Your task to perform on an android device: add a contact Image 0: 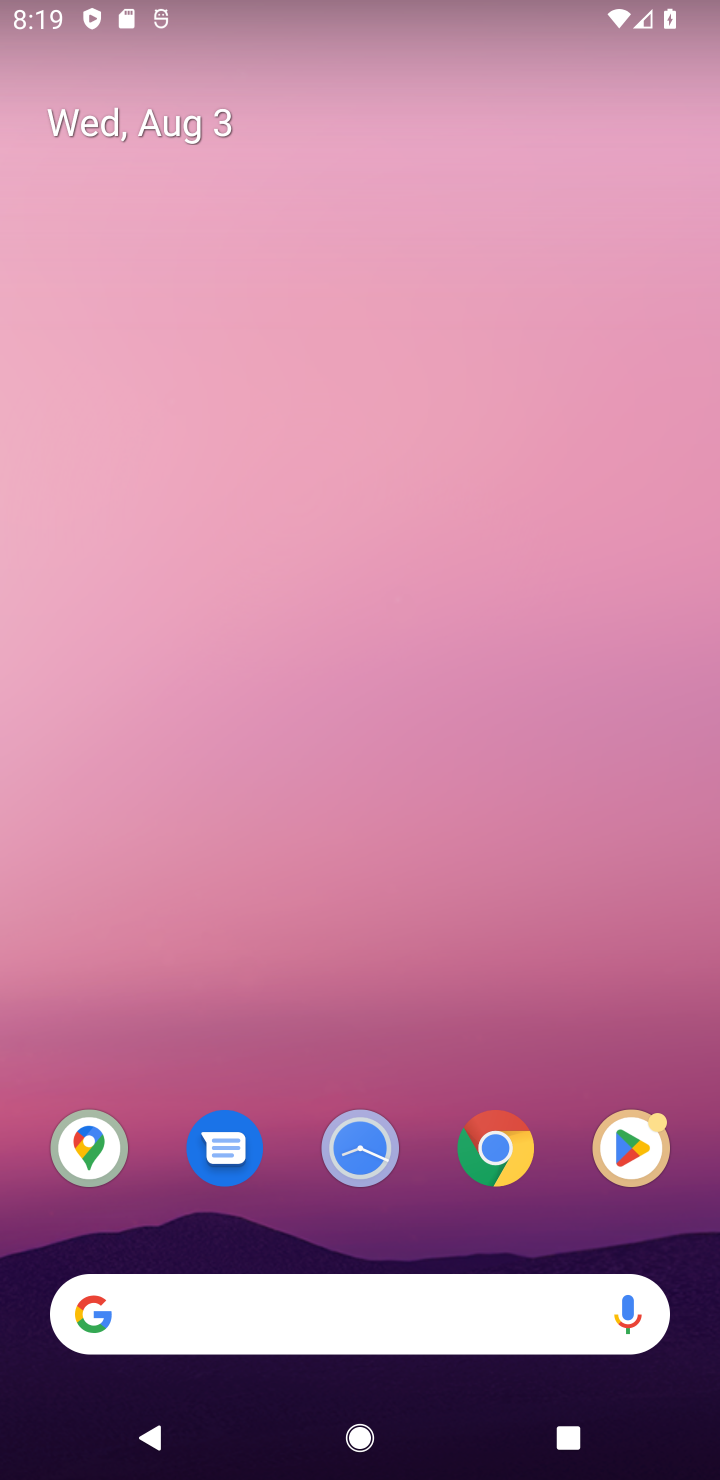
Step 0: drag from (557, 1055) to (504, 143)
Your task to perform on an android device: add a contact Image 1: 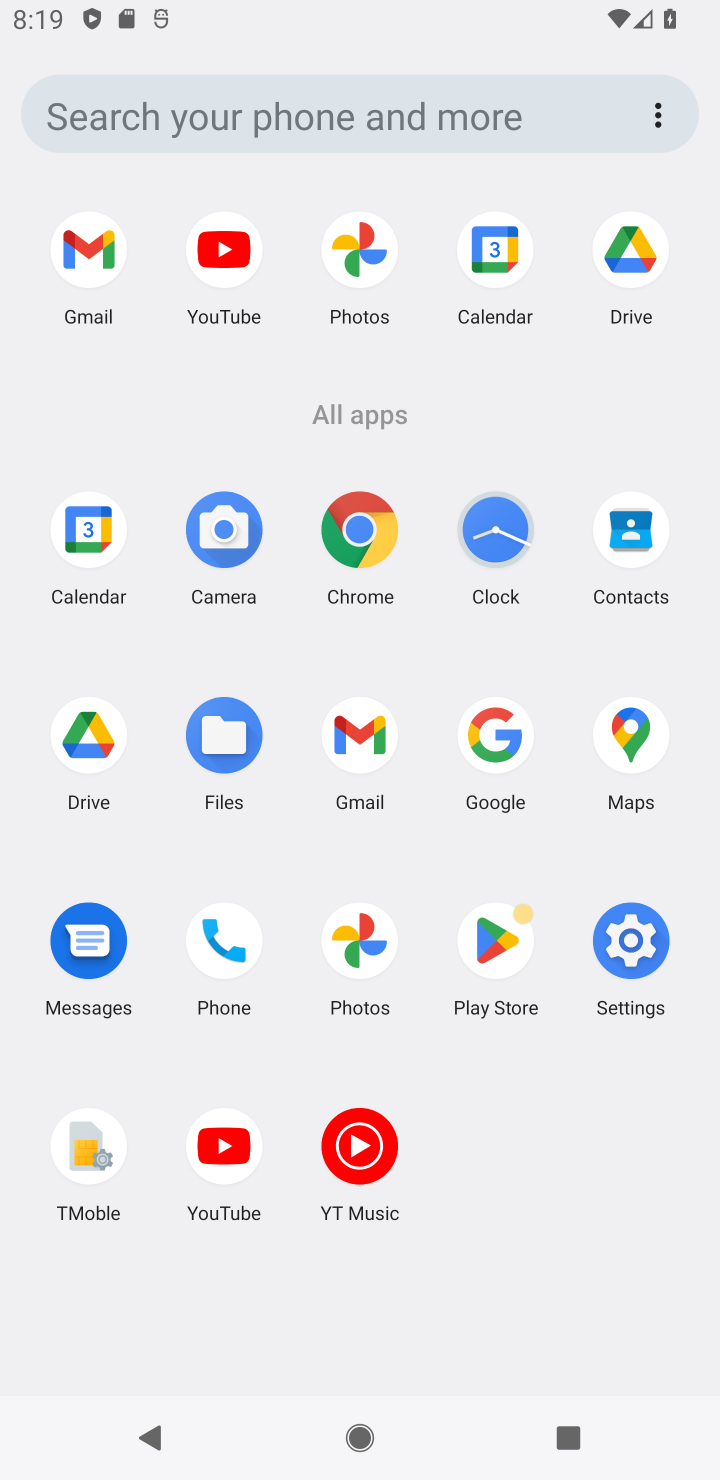
Step 1: click (640, 545)
Your task to perform on an android device: add a contact Image 2: 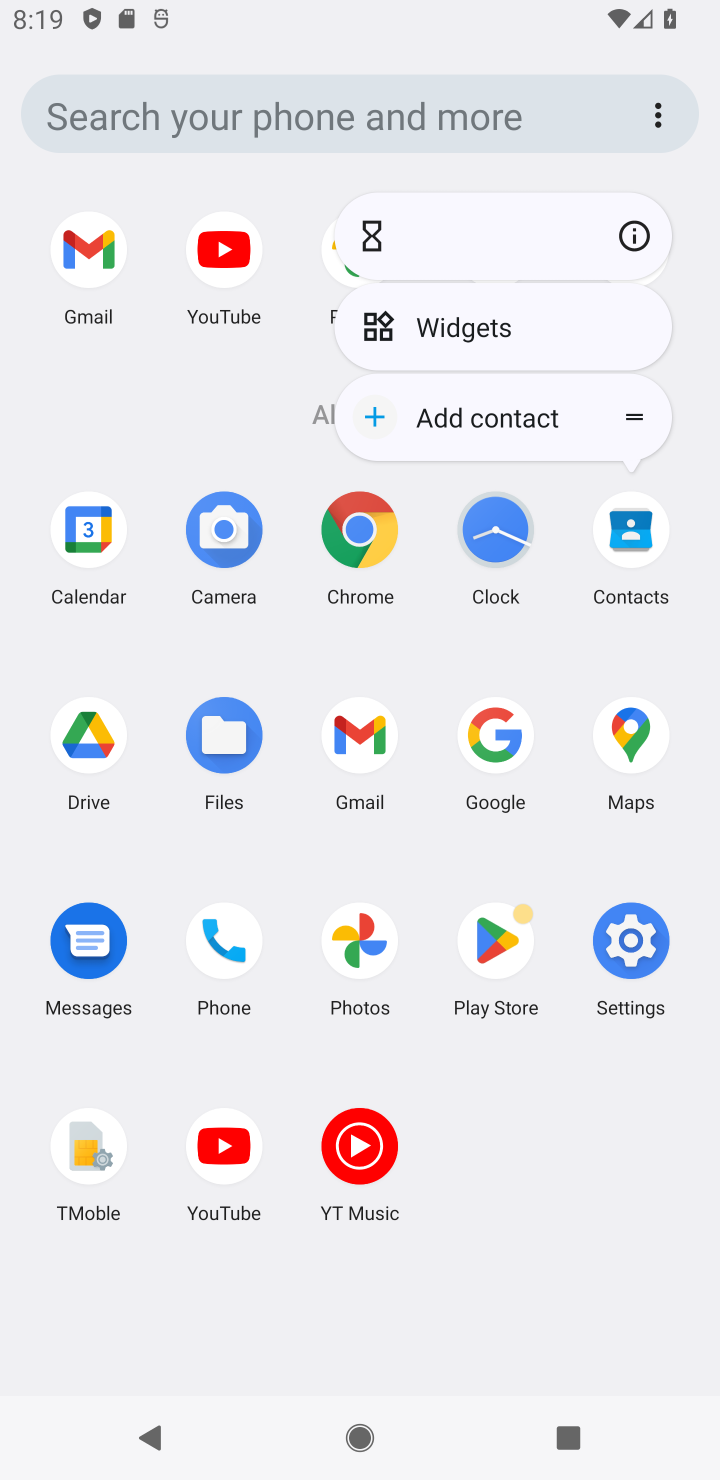
Step 2: click (640, 545)
Your task to perform on an android device: add a contact Image 3: 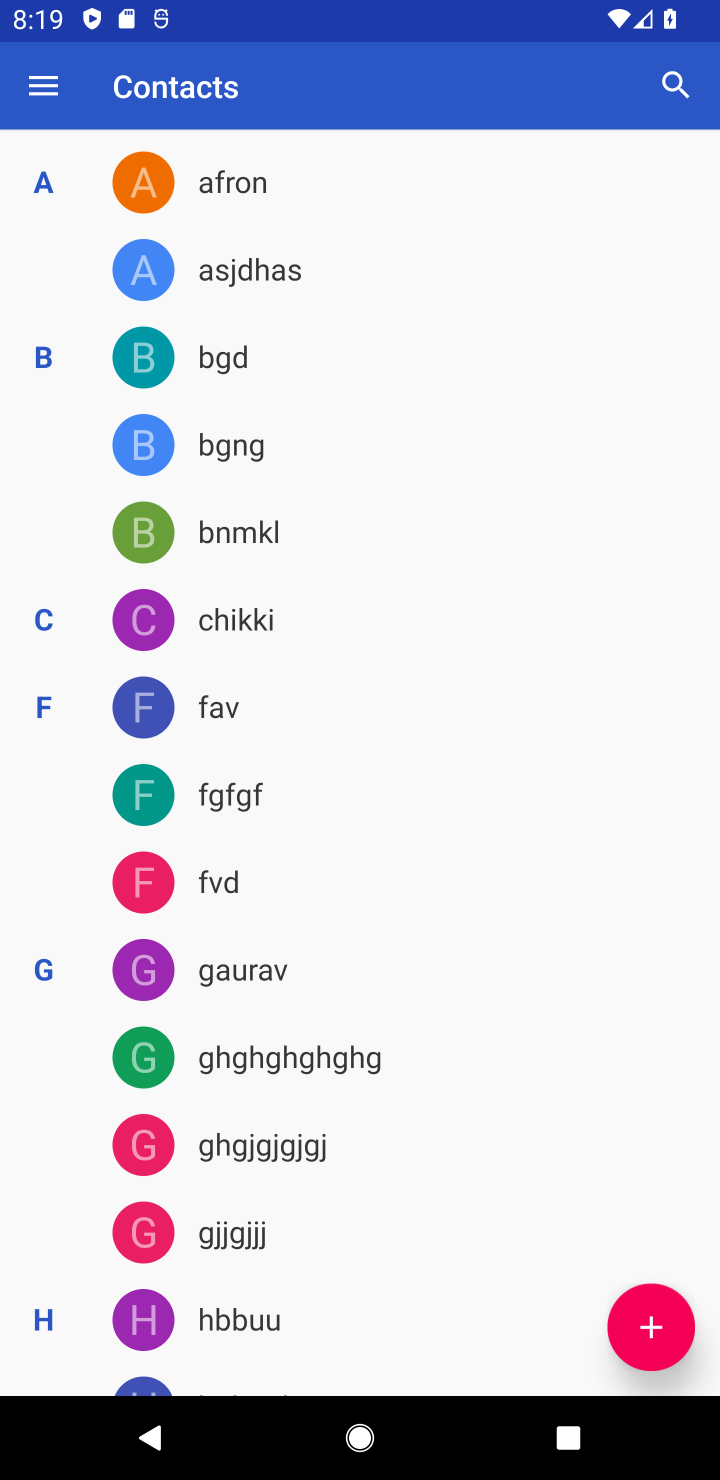
Step 3: click (651, 1311)
Your task to perform on an android device: add a contact Image 4: 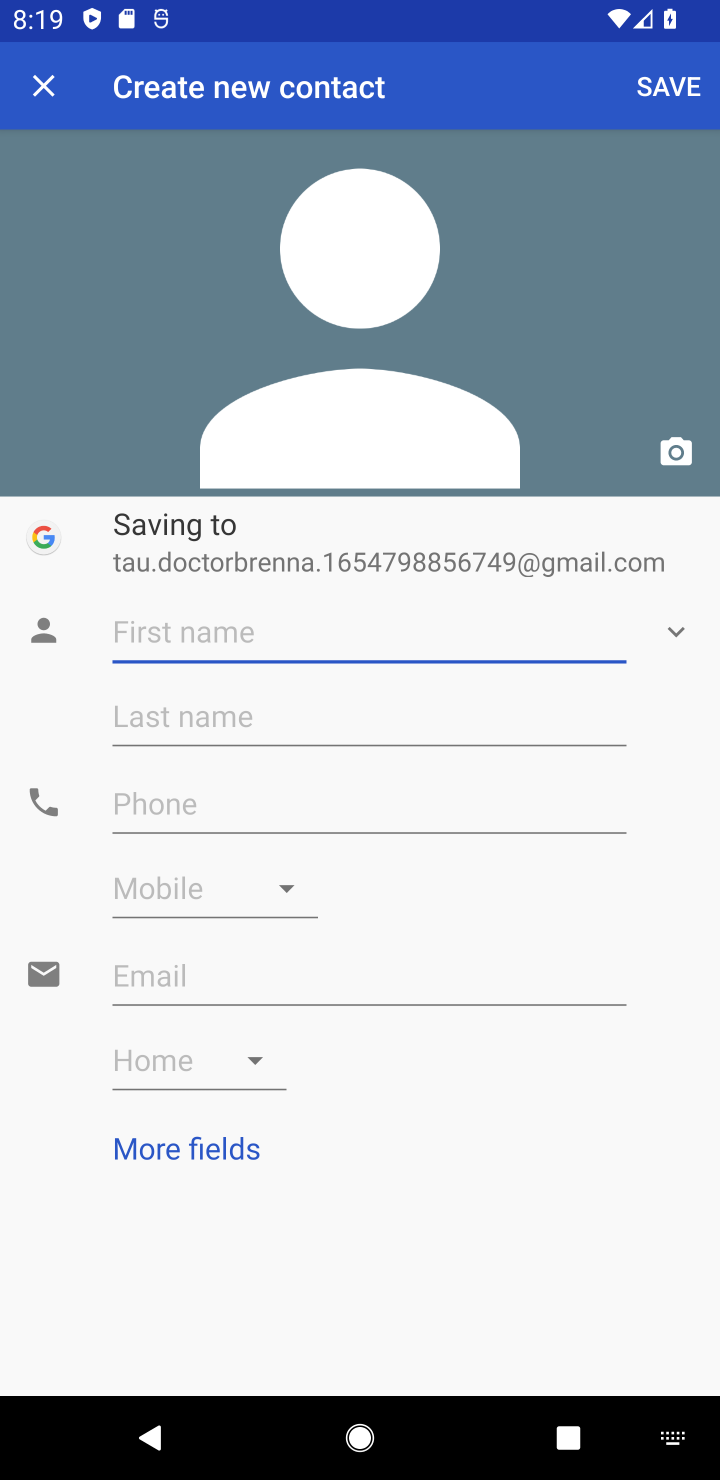
Step 4: click (260, 615)
Your task to perform on an android device: add a contact Image 5: 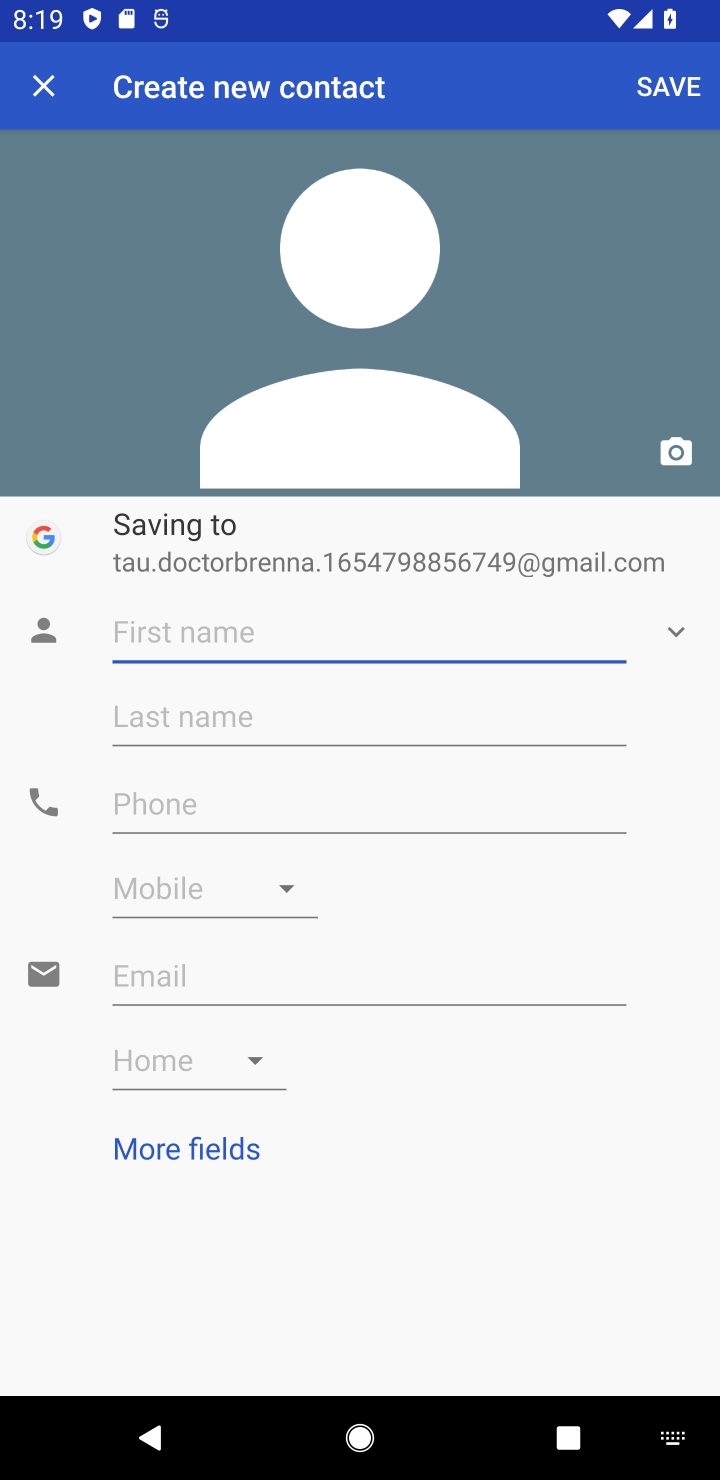
Step 5: type "vhjv"
Your task to perform on an android device: add a contact Image 6: 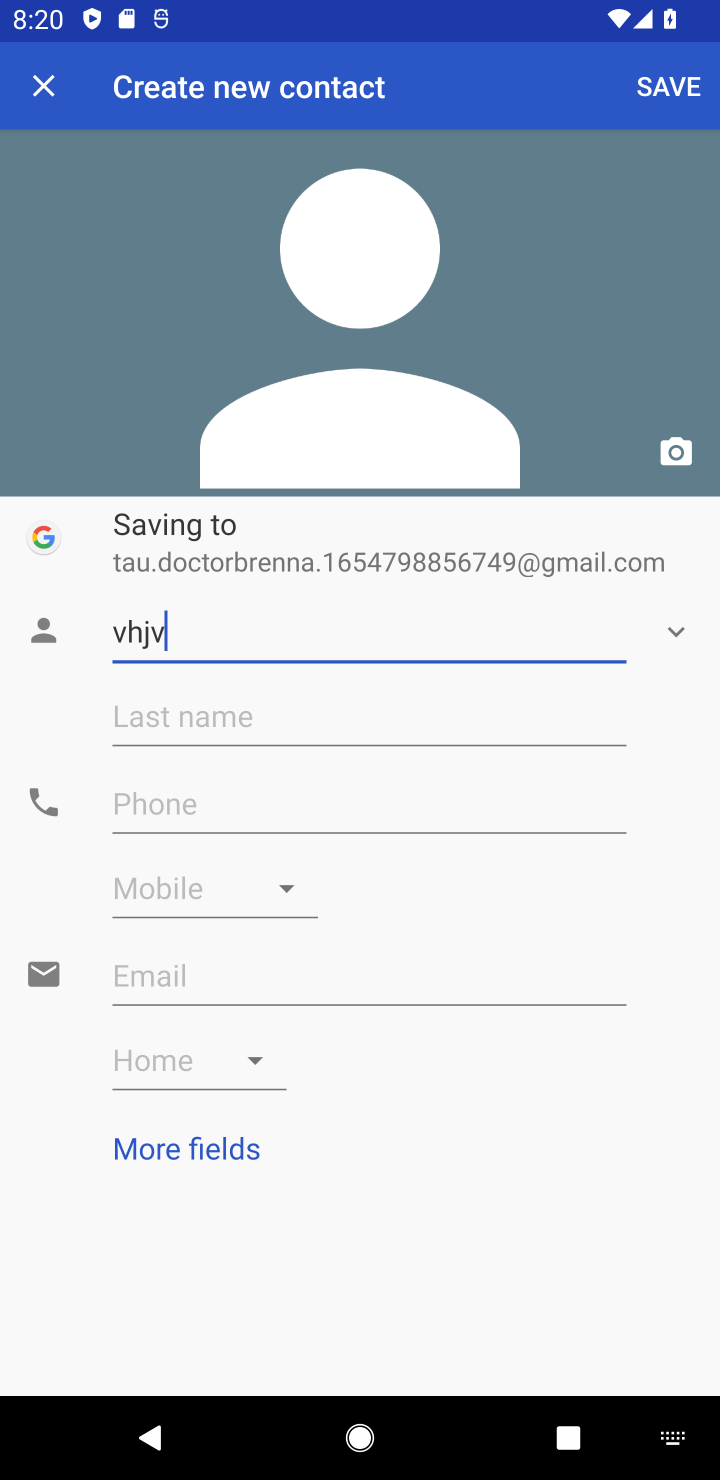
Step 6: click (353, 808)
Your task to perform on an android device: add a contact Image 7: 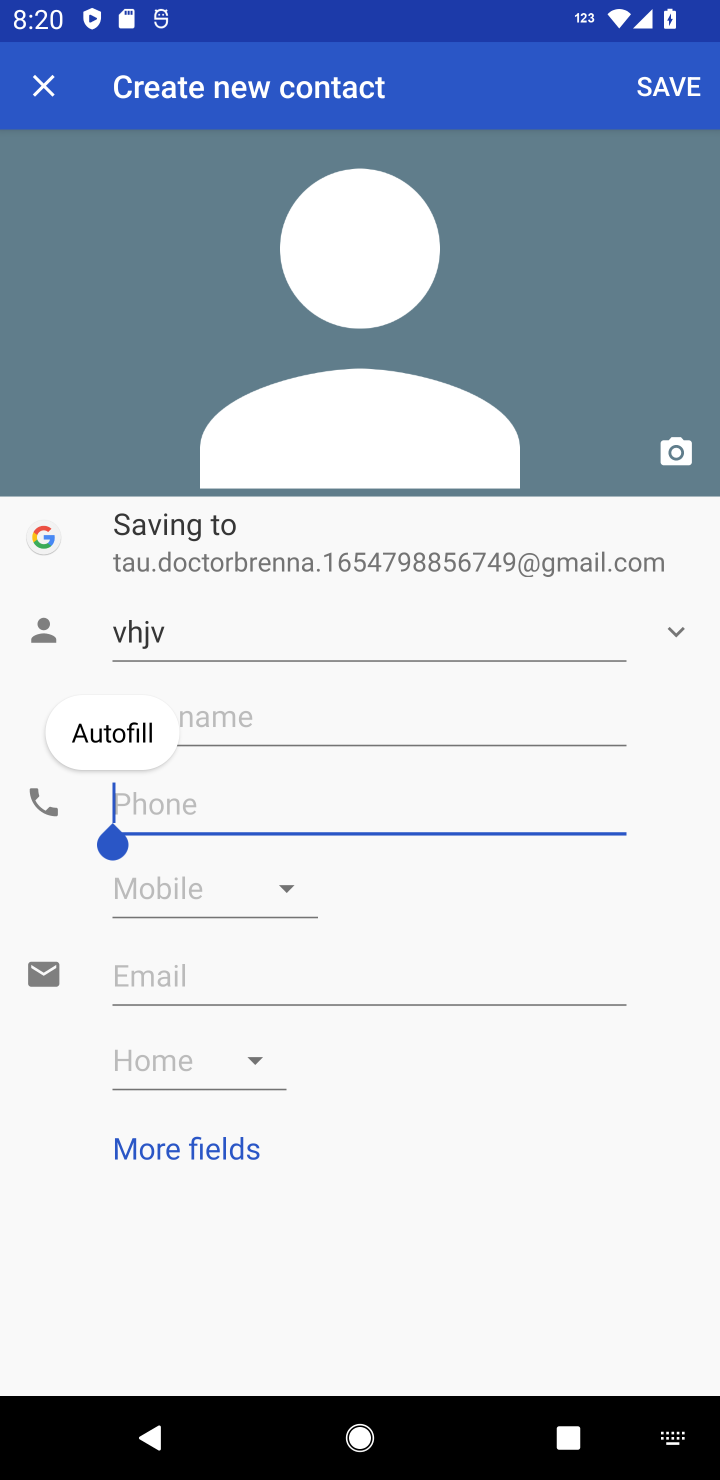
Step 7: type "7697"
Your task to perform on an android device: add a contact Image 8: 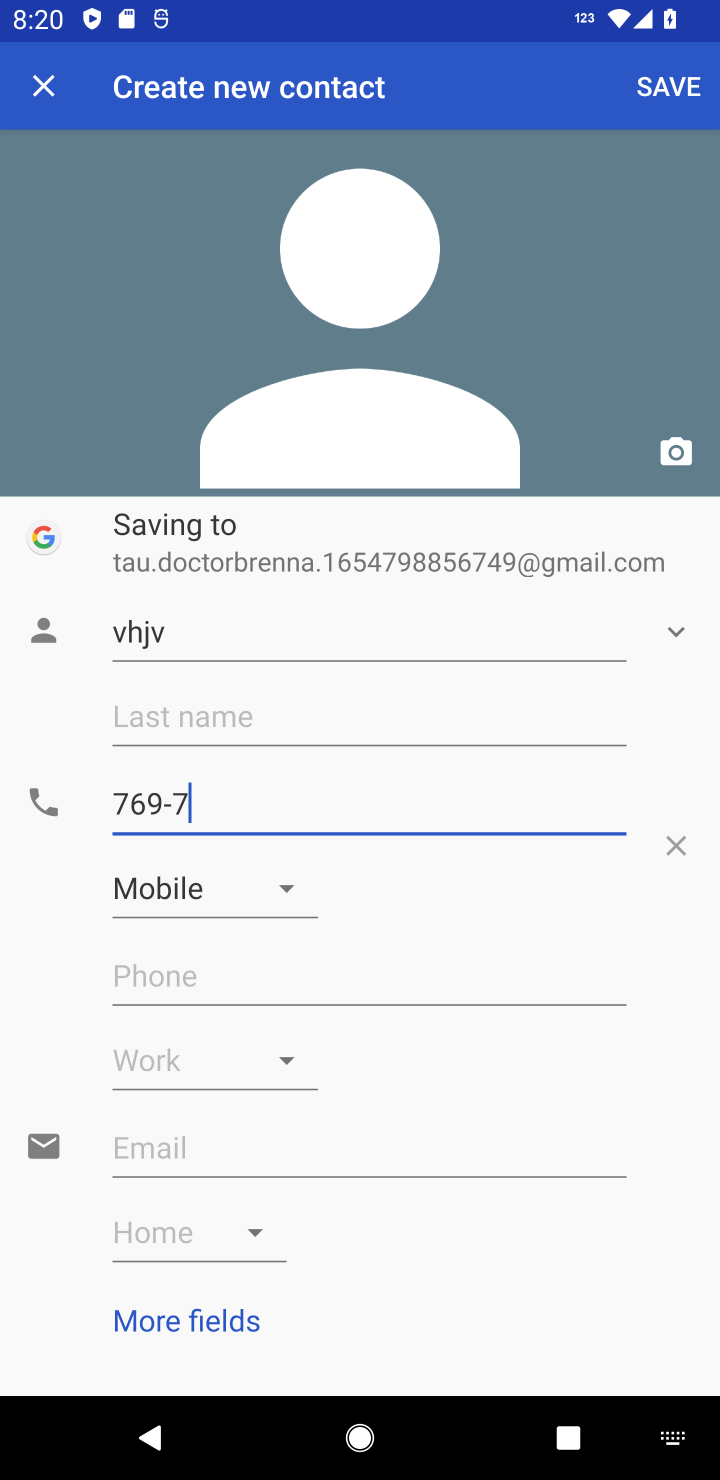
Step 8: click (679, 92)
Your task to perform on an android device: add a contact Image 9: 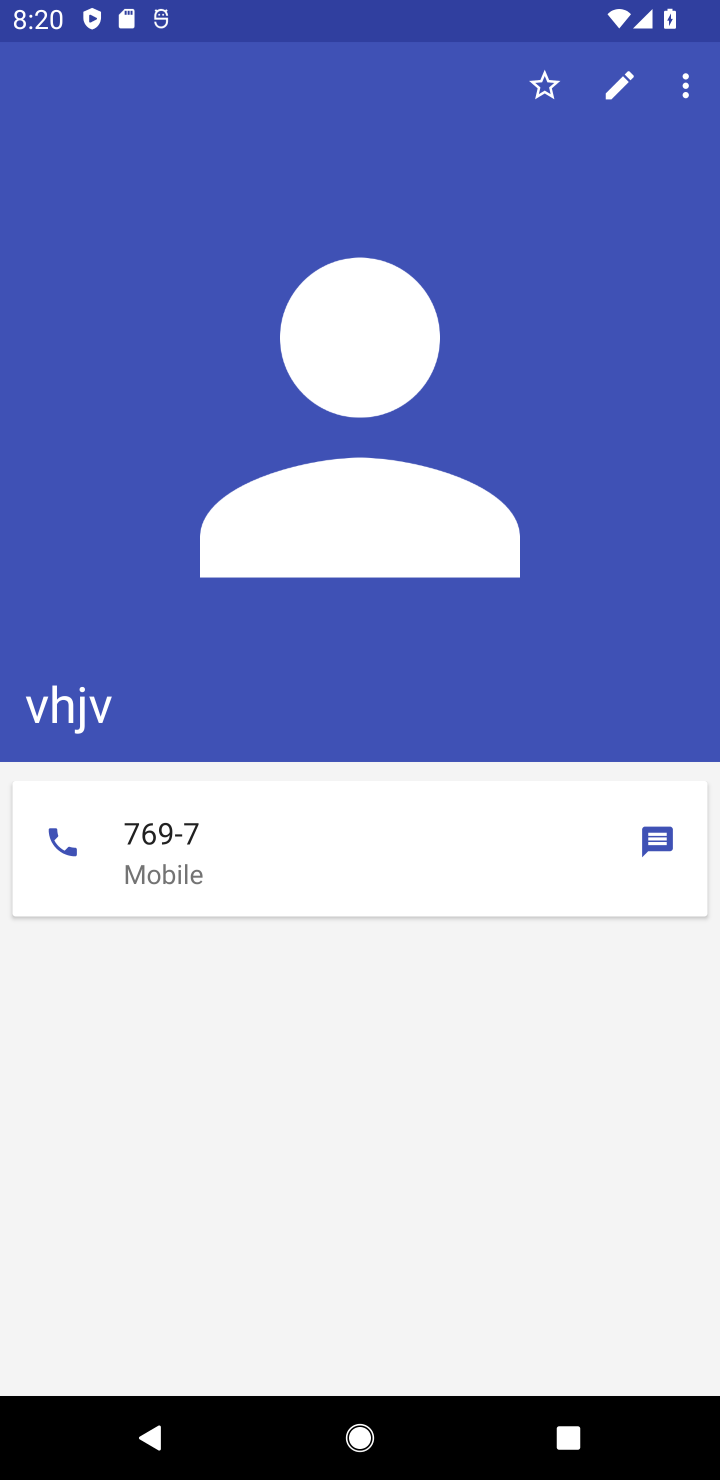
Step 9: task complete